Your task to perform on an android device: delete a single message in the gmail app Image 0: 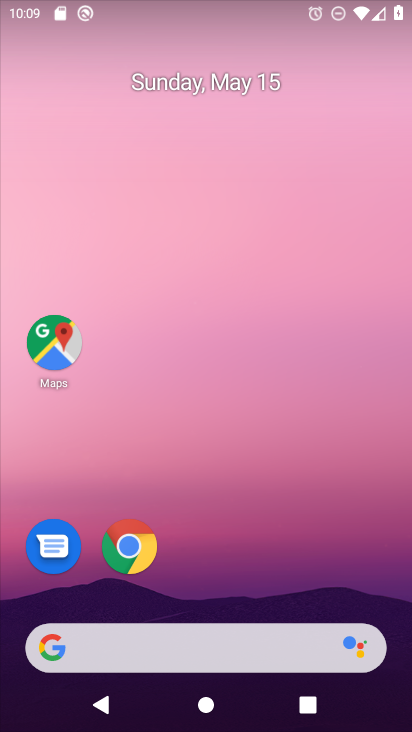
Step 0: drag from (237, 540) to (262, 51)
Your task to perform on an android device: delete a single message in the gmail app Image 1: 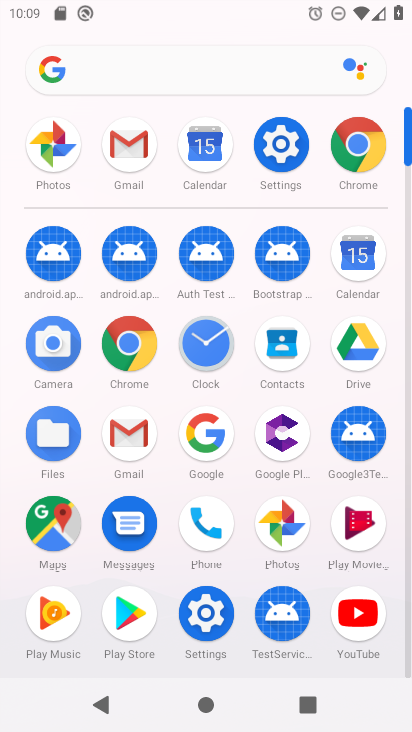
Step 1: click (125, 435)
Your task to perform on an android device: delete a single message in the gmail app Image 2: 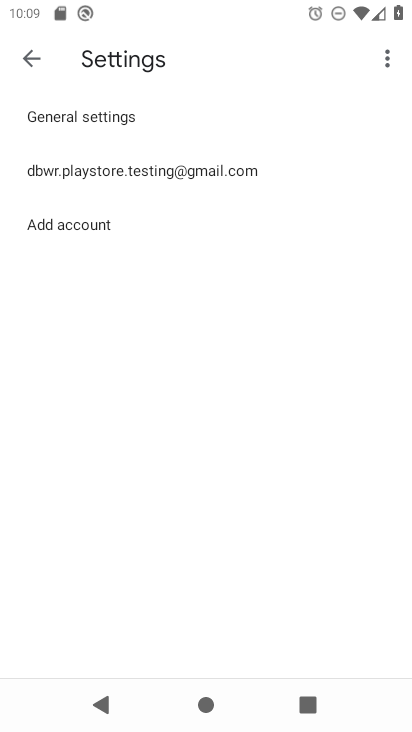
Step 2: click (35, 55)
Your task to perform on an android device: delete a single message in the gmail app Image 3: 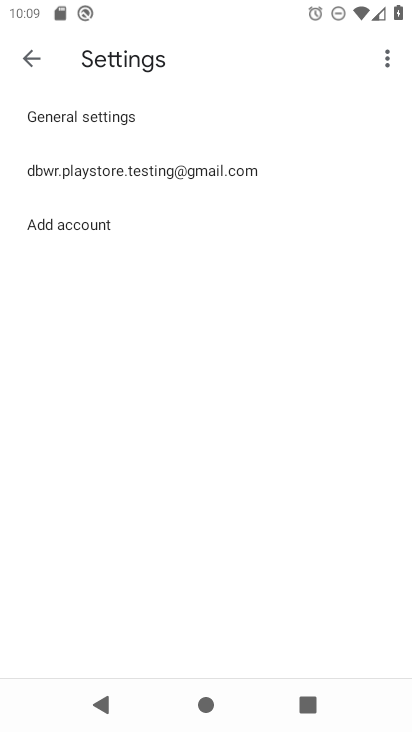
Step 3: click (25, 58)
Your task to perform on an android device: delete a single message in the gmail app Image 4: 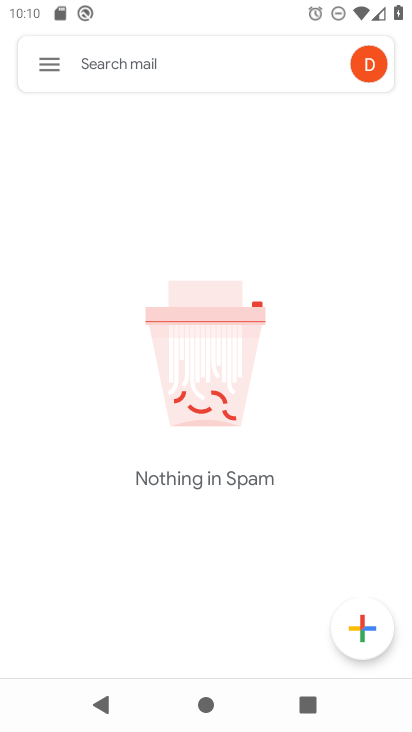
Step 4: click (45, 63)
Your task to perform on an android device: delete a single message in the gmail app Image 5: 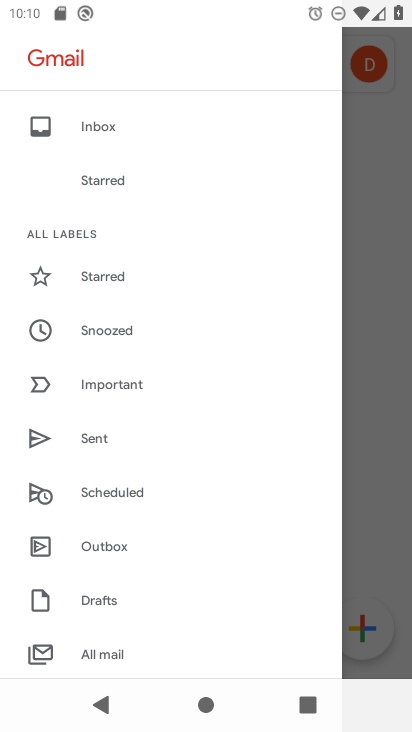
Step 5: click (102, 652)
Your task to perform on an android device: delete a single message in the gmail app Image 6: 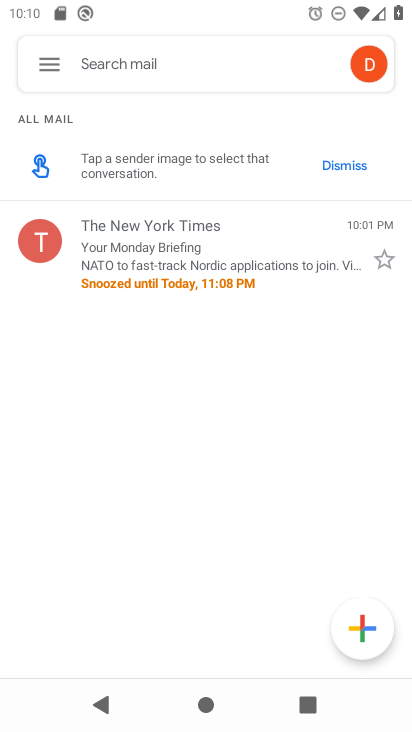
Step 6: click (280, 248)
Your task to perform on an android device: delete a single message in the gmail app Image 7: 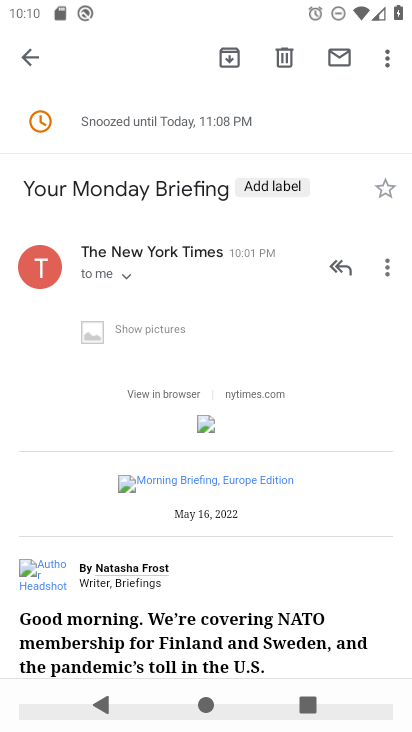
Step 7: click (292, 49)
Your task to perform on an android device: delete a single message in the gmail app Image 8: 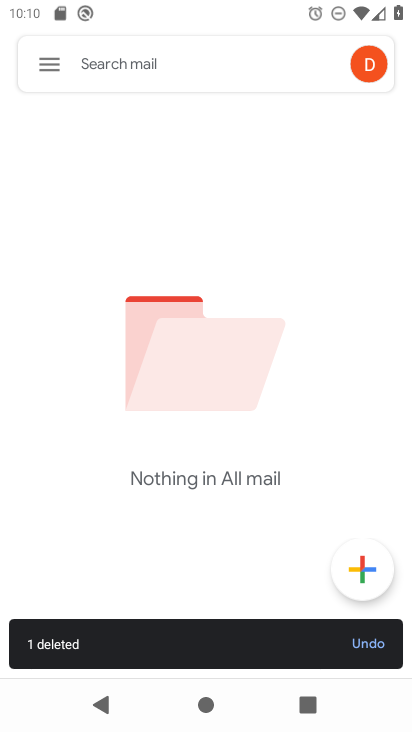
Step 8: task complete